Your task to perform on an android device: Open Google Chrome and open the bookmarks view Image 0: 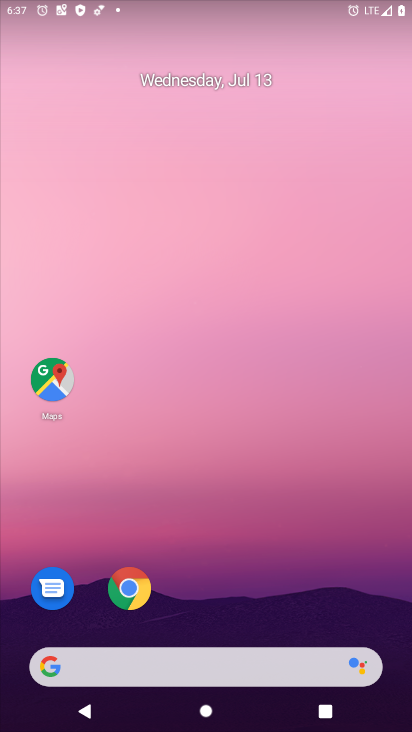
Step 0: click (135, 593)
Your task to perform on an android device: Open Google Chrome and open the bookmarks view Image 1: 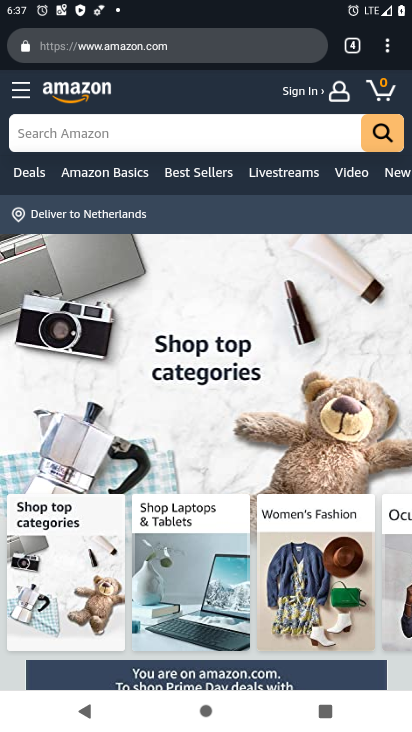
Step 1: click (386, 46)
Your task to perform on an android device: Open Google Chrome and open the bookmarks view Image 2: 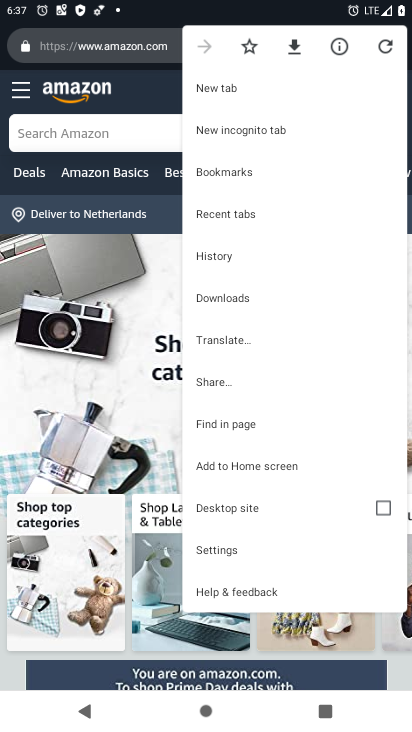
Step 2: click (232, 167)
Your task to perform on an android device: Open Google Chrome and open the bookmarks view Image 3: 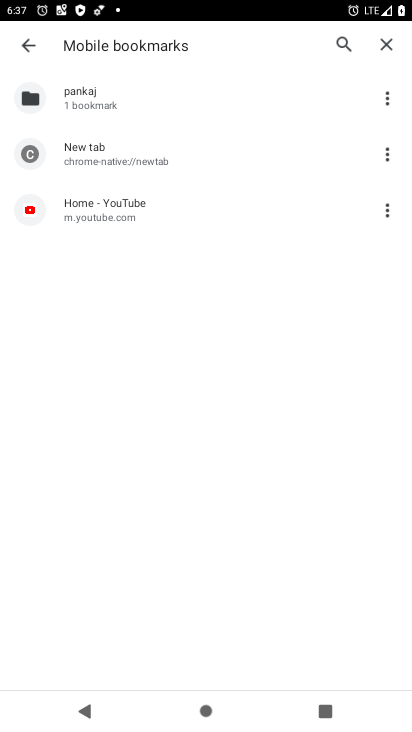
Step 3: task complete